Your task to perform on an android device: open device folders in google photos Image 0: 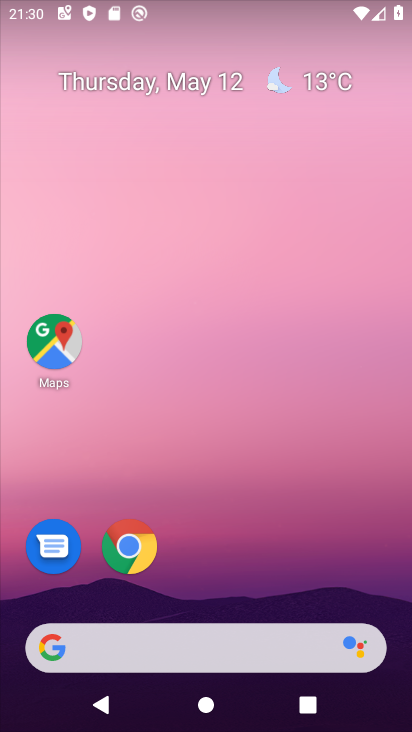
Step 0: drag from (220, 586) to (223, 91)
Your task to perform on an android device: open device folders in google photos Image 1: 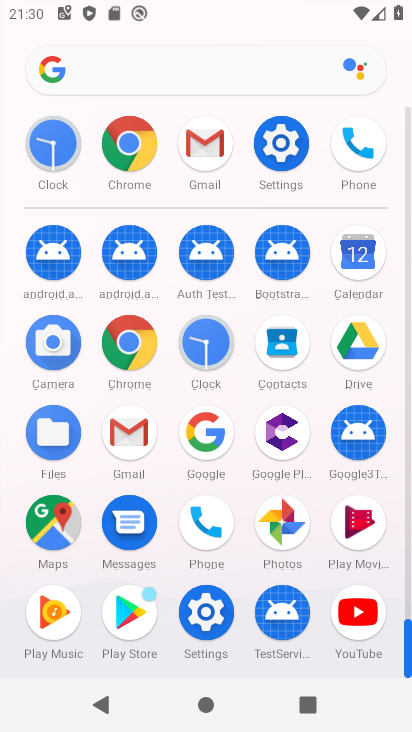
Step 1: click (295, 522)
Your task to perform on an android device: open device folders in google photos Image 2: 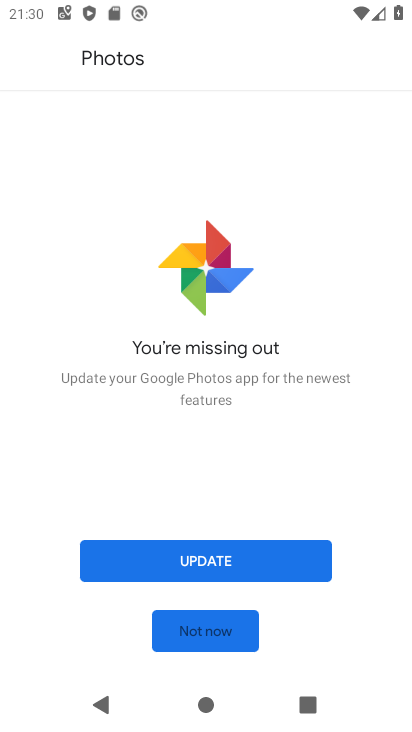
Step 2: click (236, 565)
Your task to perform on an android device: open device folders in google photos Image 3: 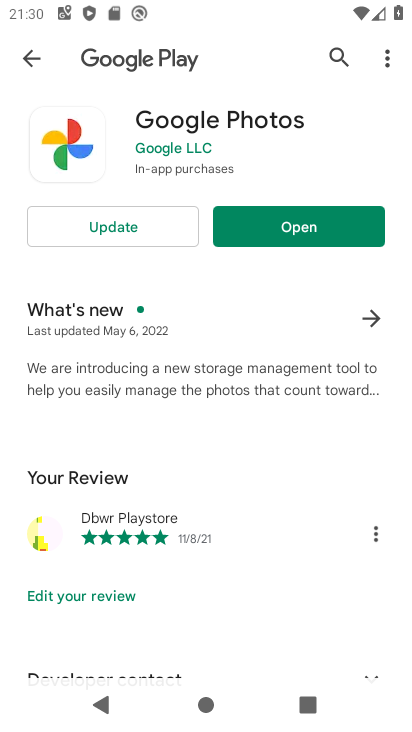
Step 3: click (147, 218)
Your task to perform on an android device: open device folders in google photos Image 4: 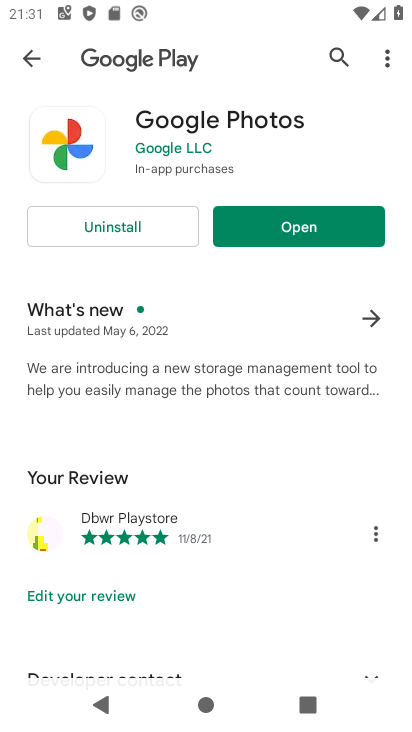
Step 4: click (256, 219)
Your task to perform on an android device: open device folders in google photos Image 5: 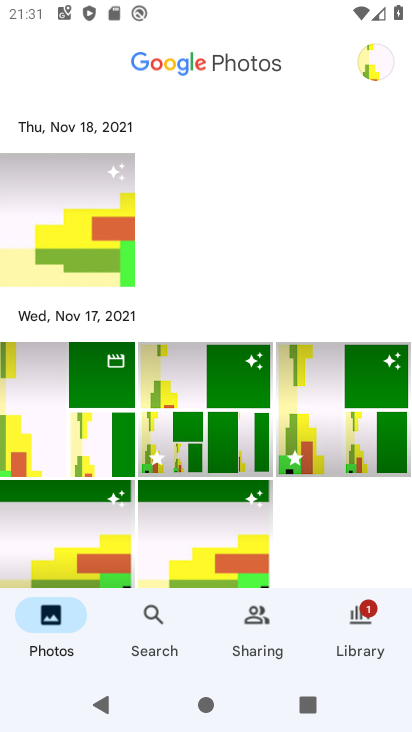
Step 5: click (364, 66)
Your task to perform on an android device: open device folders in google photos Image 6: 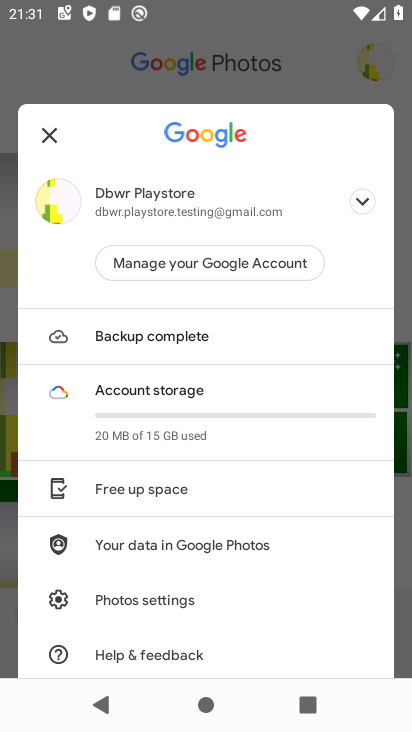
Step 6: task complete